Your task to perform on an android device: Open Wikipedia Image 0: 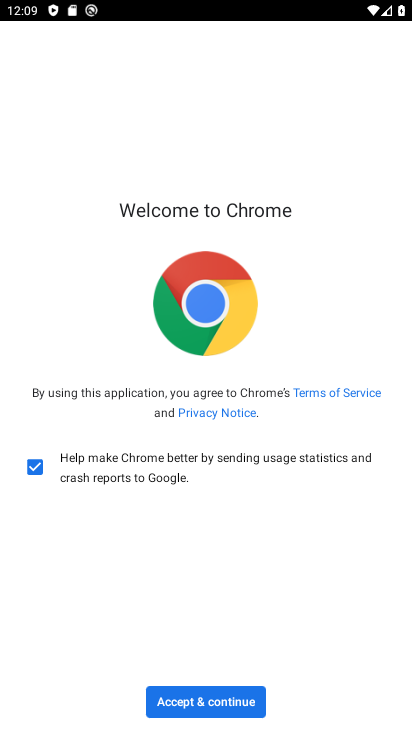
Step 0: press home button
Your task to perform on an android device: Open Wikipedia Image 1: 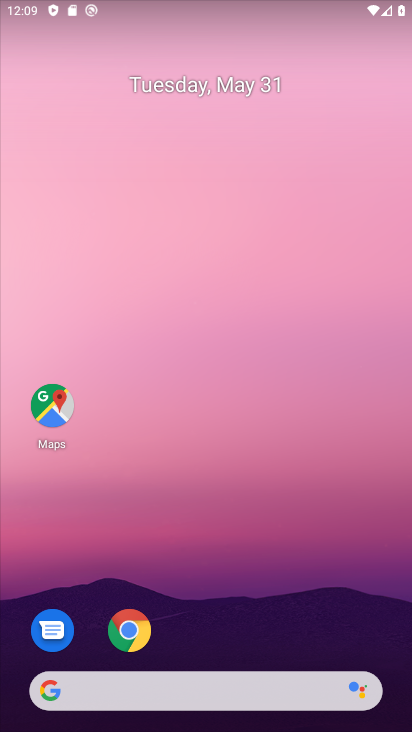
Step 1: click (126, 623)
Your task to perform on an android device: Open Wikipedia Image 2: 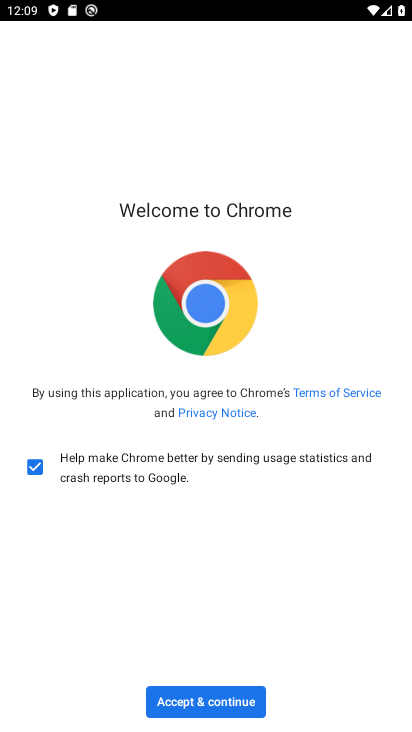
Step 2: click (196, 710)
Your task to perform on an android device: Open Wikipedia Image 3: 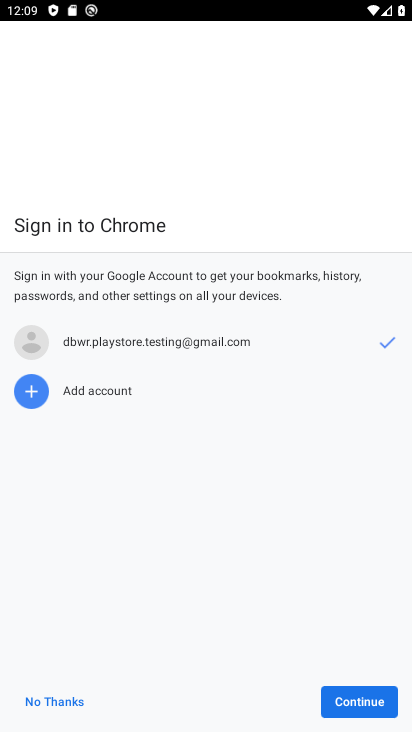
Step 3: click (366, 699)
Your task to perform on an android device: Open Wikipedia Image 4: 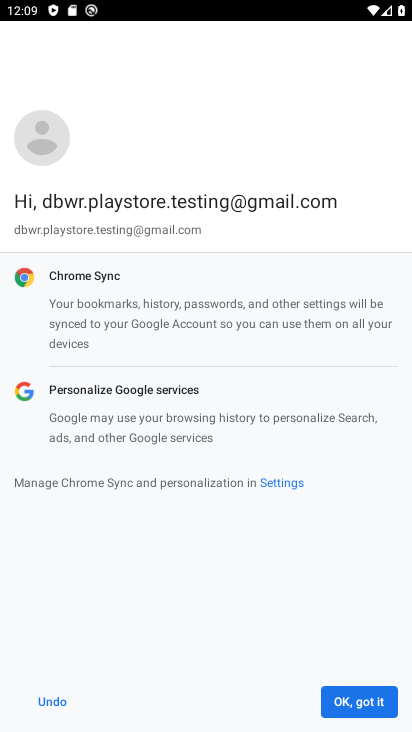
Step 4: click (361, 698)
Your task to perform on an android device: Open Wikipedia Image 5: 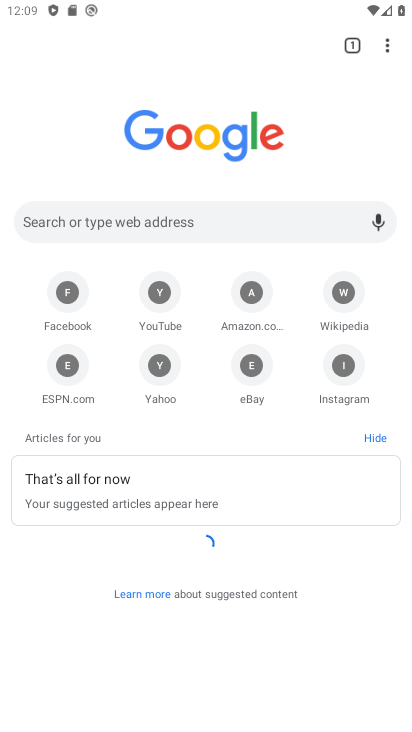
Step 5: click (99, 220)
Your task to perform on an android device: Open Wikipedia Image 6: 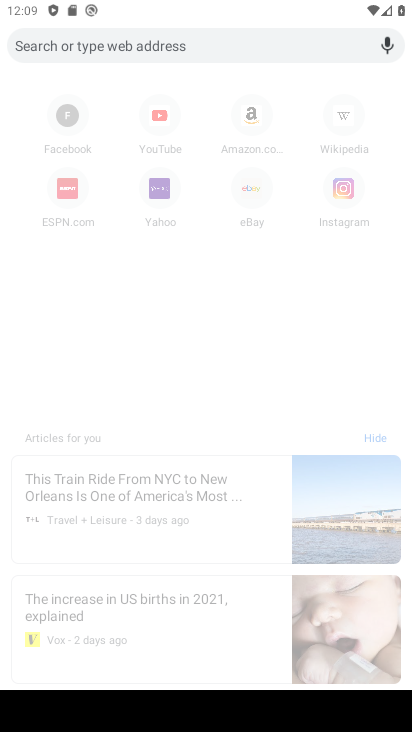
Step 6: type "wikipedia"
Your task to perform on an android device: Open Wikipedia Image 7: 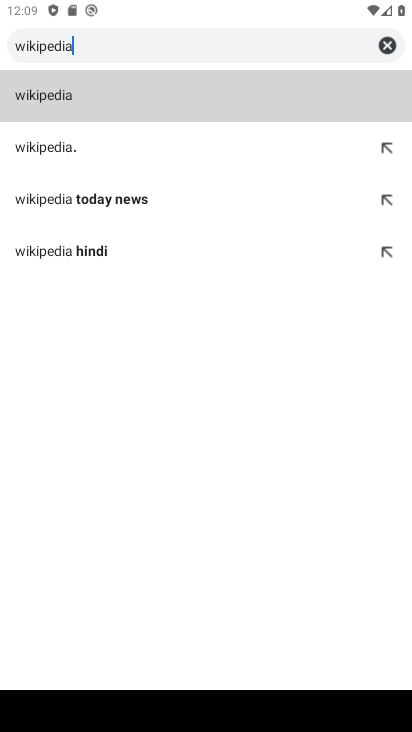
Step 7: click (101, 110)
Your task to perform on an android device: Open Wikipedia Image 8: 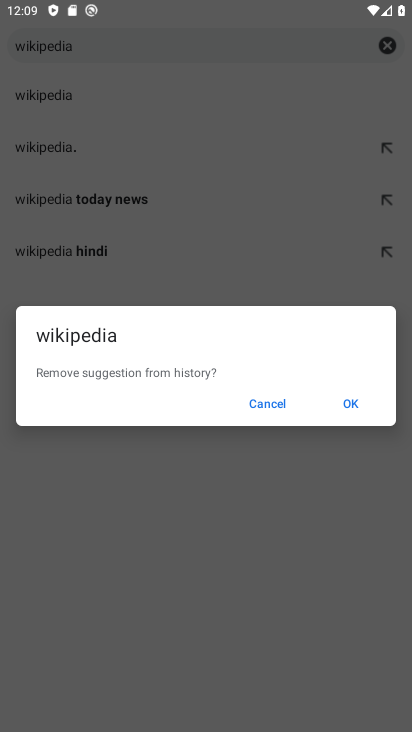
Step 8: click (344, 396)
Your task to perform on an android device: Open Wikipedia Image 9: 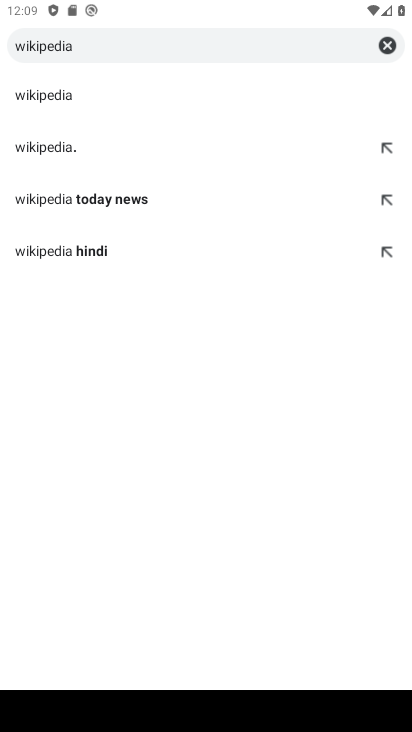
Step 9: click (57, 93)
Your task to perform on an android device: Open Wikipedia Image 10: 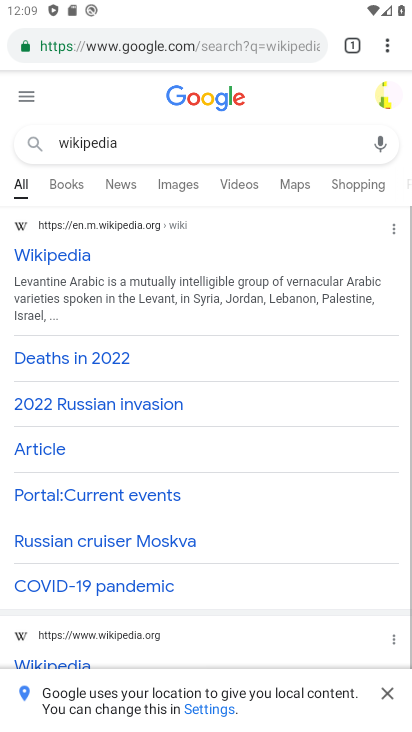
Step 10: task complete